Your task to perform on an android device: open app "Spotify: Music and Podcasts" Image 0: 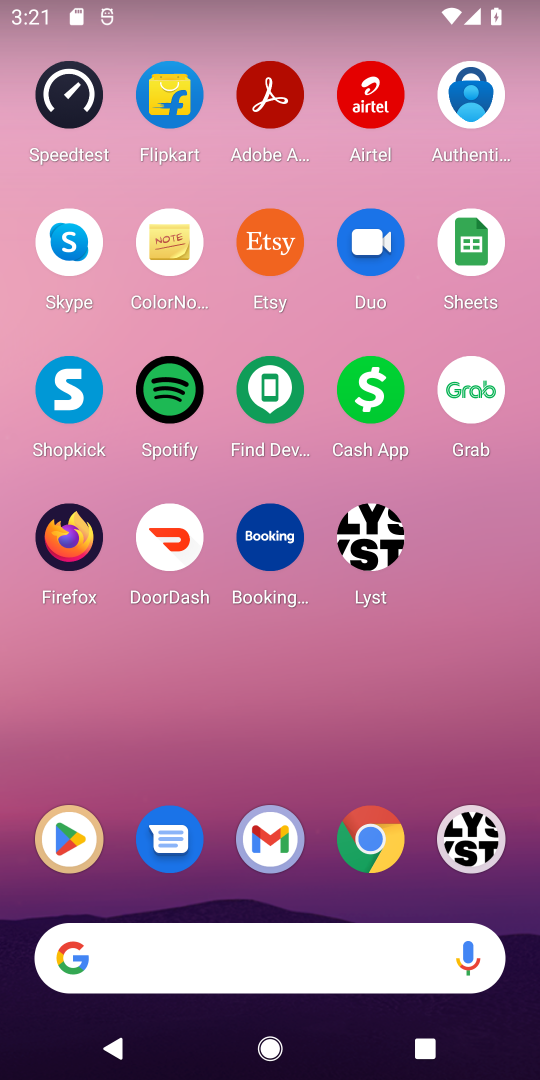
Step 0: click (148, 405)
Your task to perform on an android device: open app "Spotify: Music and Podcasts" Image 1: 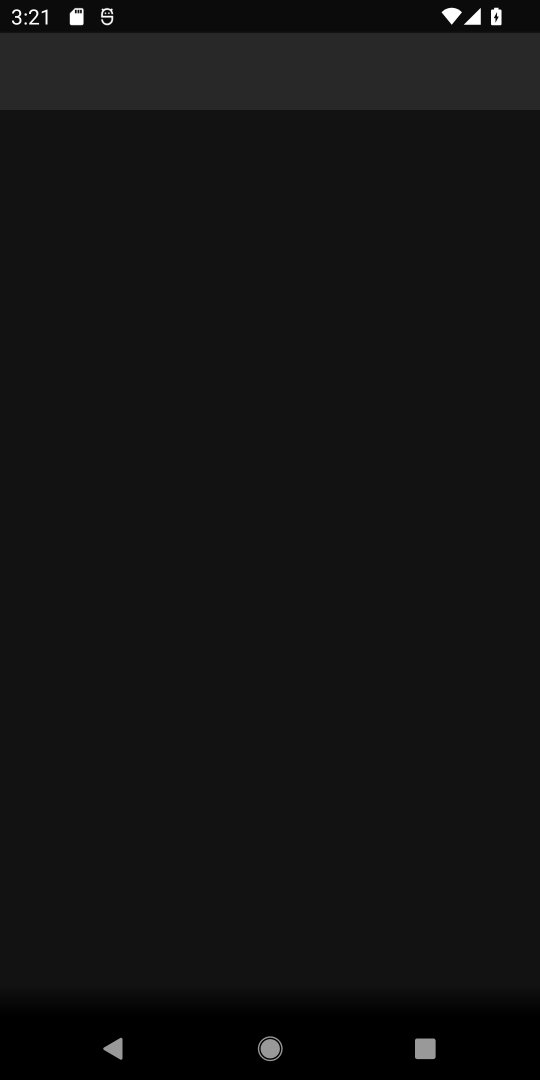
Step 1: task complete